Your task to perform on an android device: Search for Mexican restaurants on Maps Image 0: 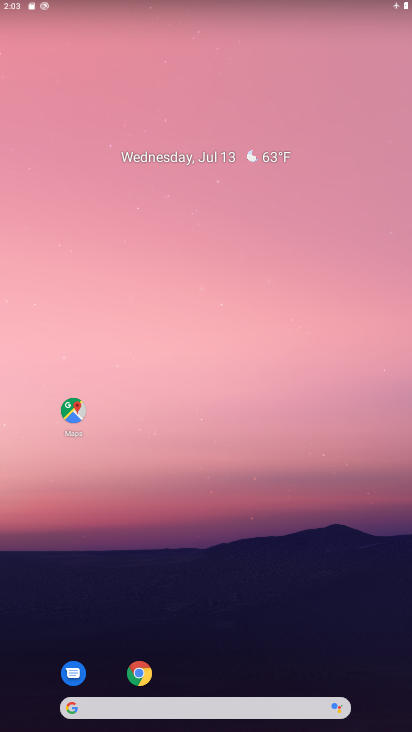
Step 0: drag from (160, 630) to (227, 194)
Your task to perform on an android device: Search for Mexican restaurants on Maps Image 1: 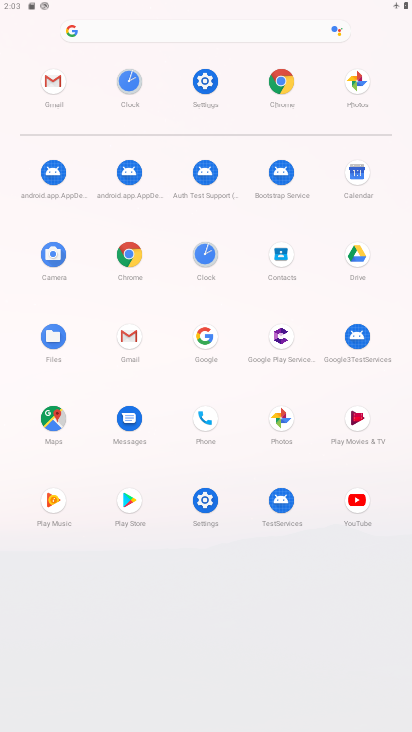
Step 1: click (46, 423)
Your task to perform on an android device: Search for Mexican restaurants on Maps Image 2: 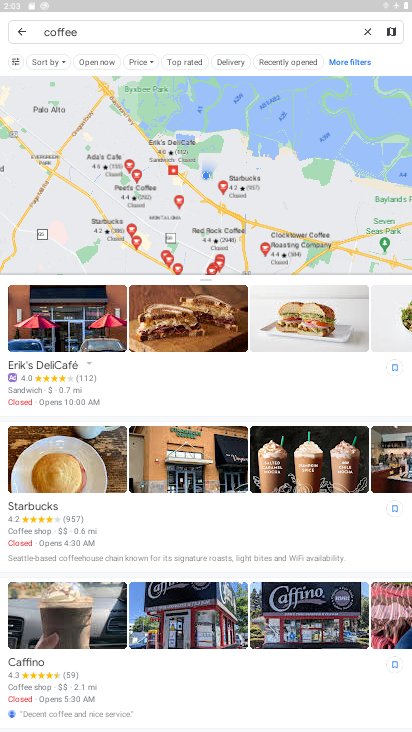
Step 2: click (376, 28)
Your task to perform on an android device: Search for Mexican restaurants on Maps Image 3: 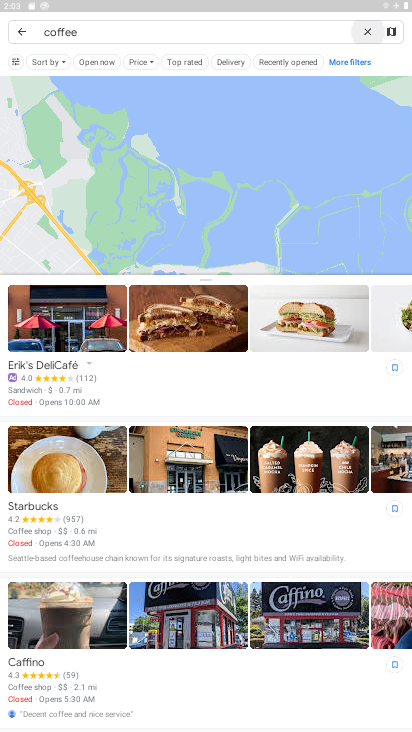
Step 3: click (367, 28)
Your task to perform on an android device: Search for Mexican restaurants on Maps Image 4: 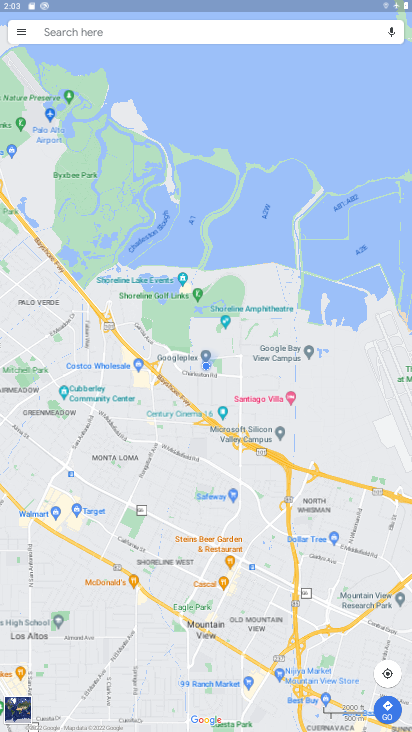
Step 4: click (237, 32)
Your task to perform on an android device: Search for Mexican restaurants on Maps Image 5: 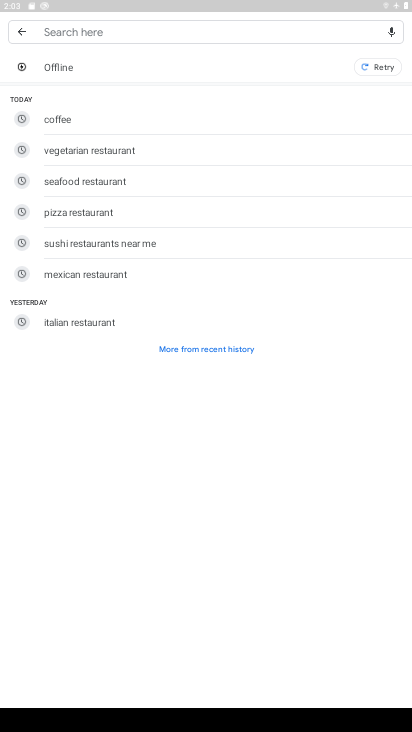
Step 5: click (86, 261)
Your task to perform on an android device: Search for Mexican restaurants on Maps Image 6: 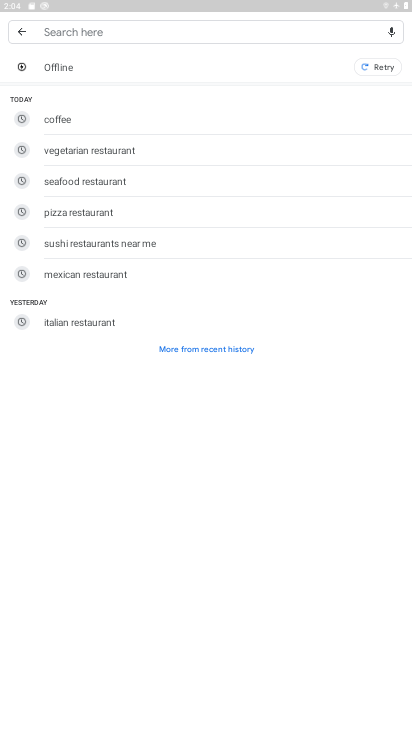
Step 6: click (137, 268)
Your task to perform on an android device: Search for Mexican restaurants on Maps Image 7: 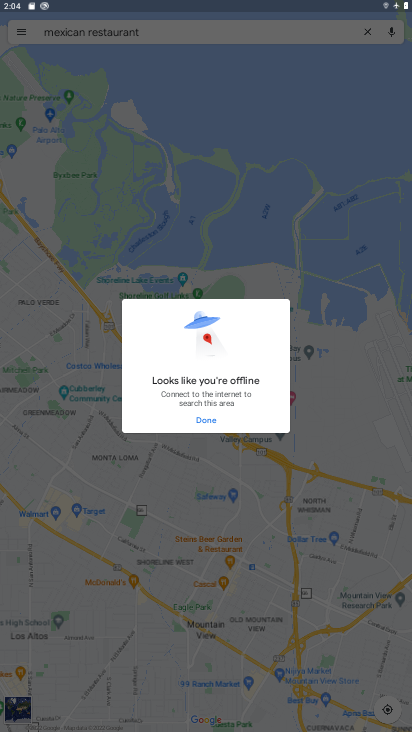
Step 7: task complete